Your task to perform on an android device: What is the recent news? Image 0: 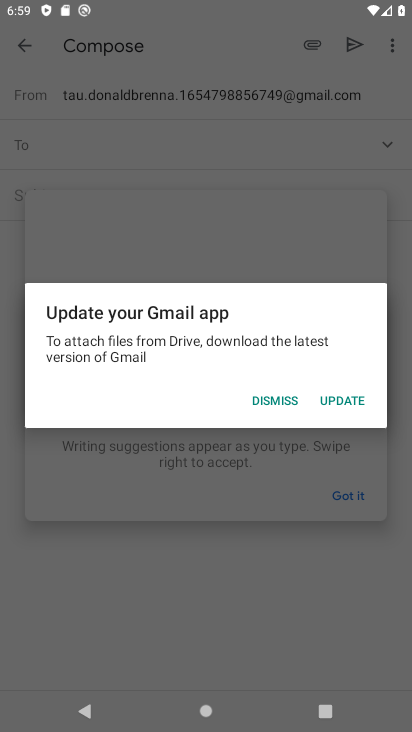
Step 0: press home button
Your task to perform on an android device: What is the recent news? Image 1: 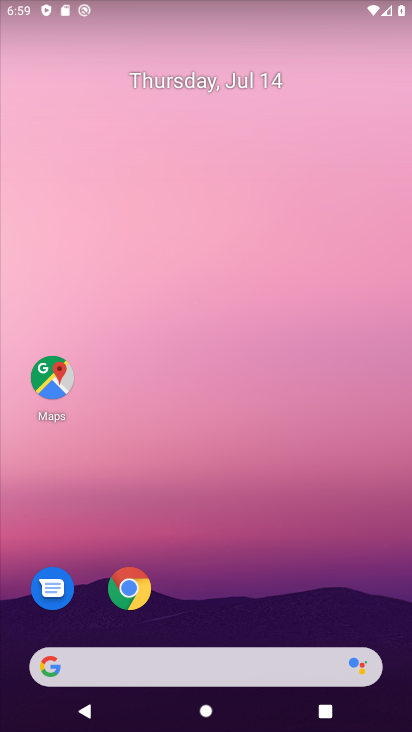
Step 1: drag from (380, 623) to (207, 0)
Your task to perform on an android device: What is the recent news? Image 2: 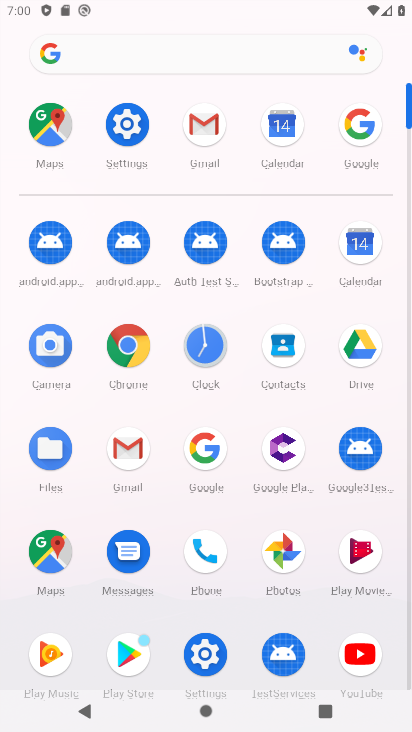
Step 2: click (201, 464)
Your task to perform on an android device: What is the recent news? Image 3: 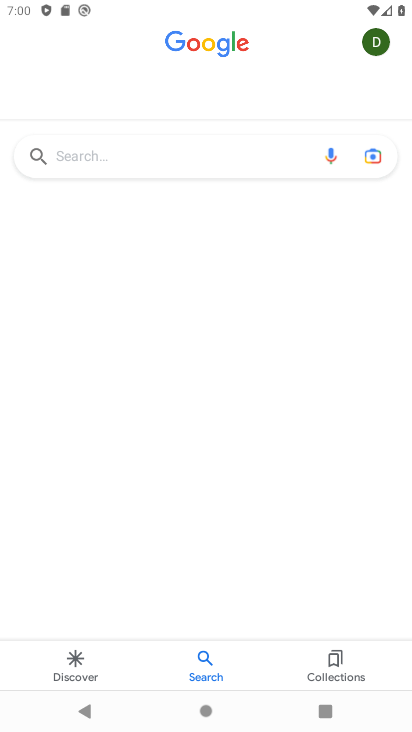
Step 3: click (93, 157)
Your task to perform on an android device: What is the recent news? Image 4: 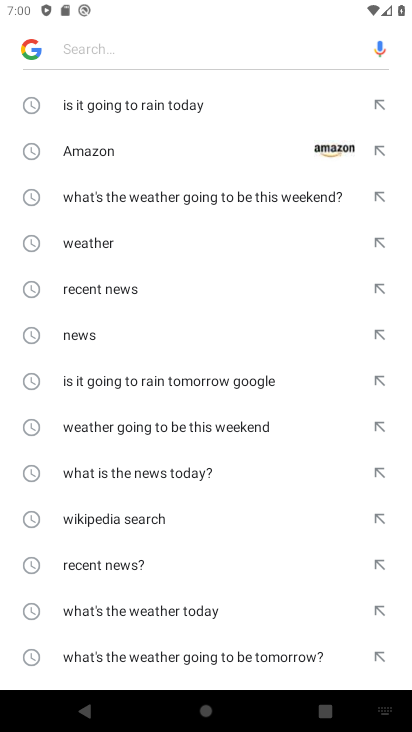
Step 4: click (104, 555)
Your task to perform on an android device: What is the recent news? Image 5: 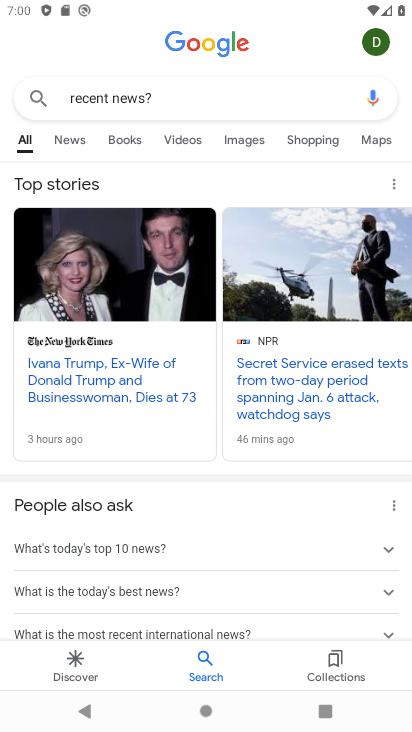
Step 5: task complete